Your task to perform on an android device: Toggle the flashlight Image 0: 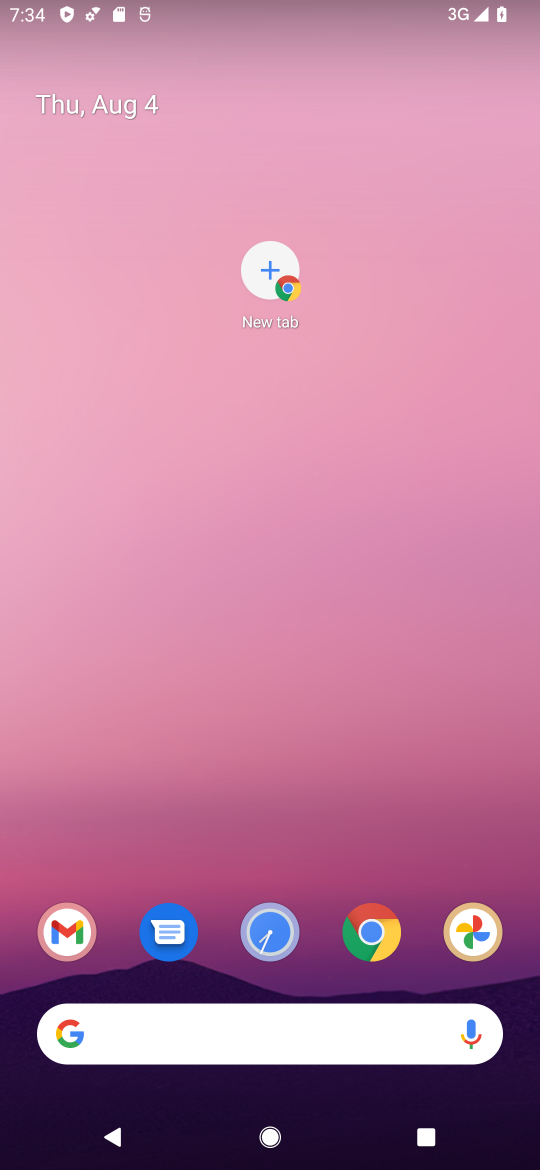
Step 0: click (370, 273)
Your task to perform on an android device: Toggle the flashlight Image 1: 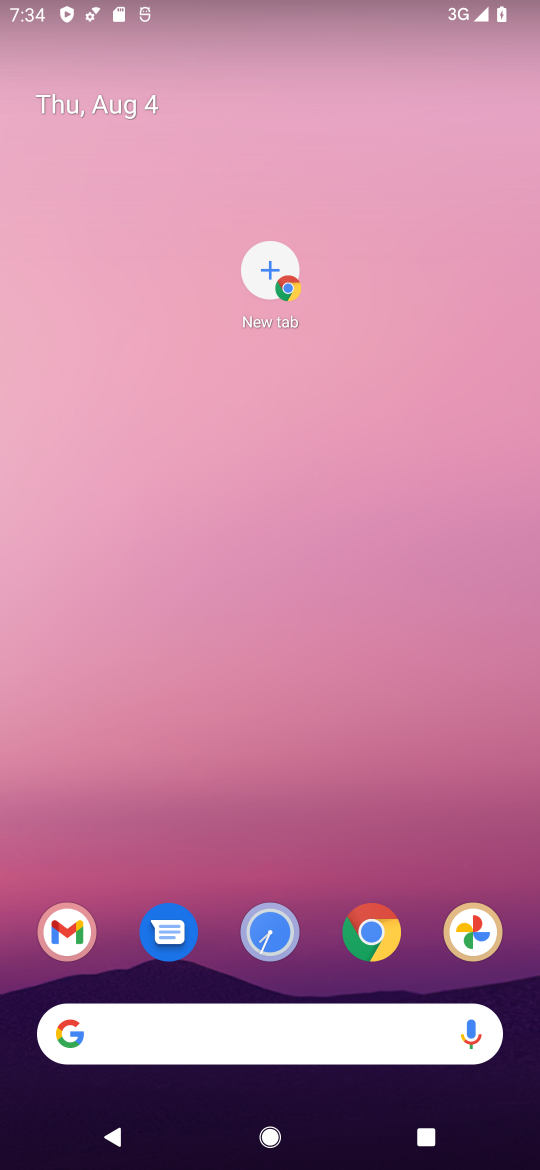
Step 1: drag from (323, 998) to (428, 89)
Your task to perform on an android device: Toggle the flashlight Image 2: 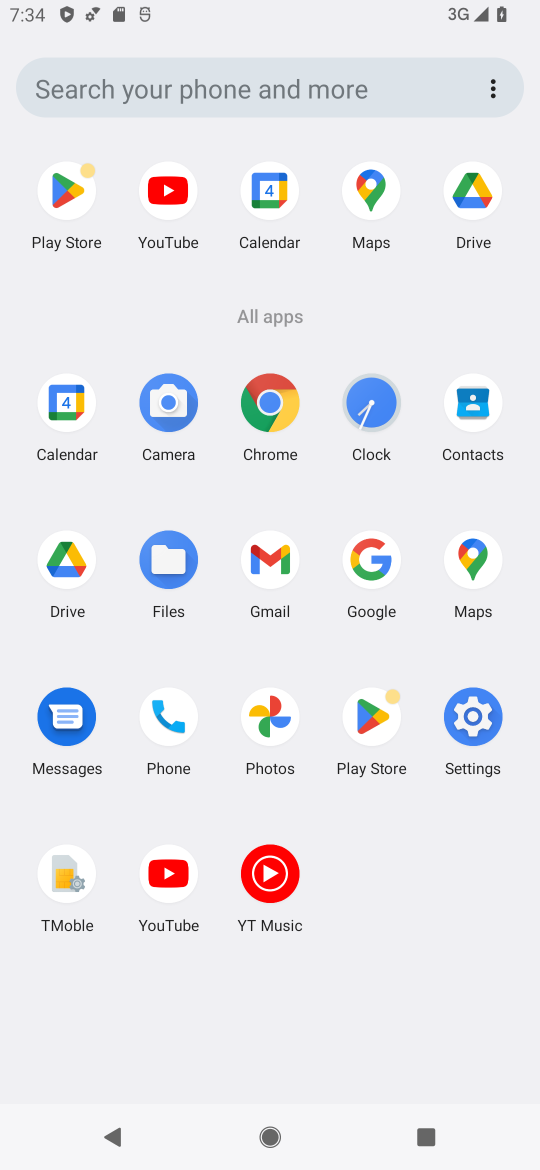
Step 2: click (268, 644)
Your task to perform on an android device: Toggle the flashlight Image 3: 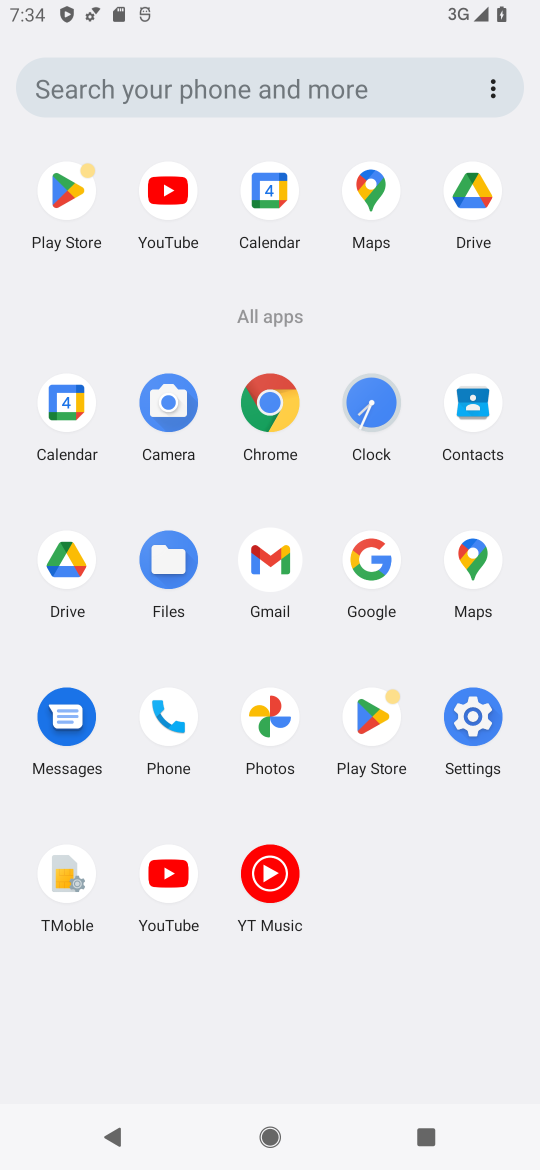
Step 3: drag from (312, 683) to (315, 353)
Your task to perform on an android device: Toggle the flashlight Image 4: 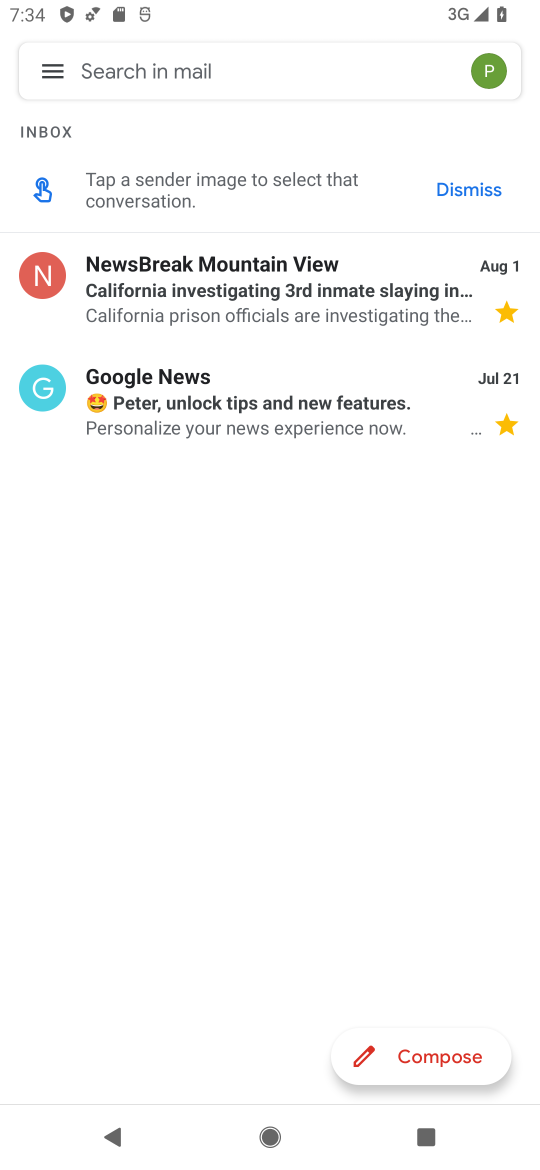
Step 4: drag from (382, 815) to (313, 307)
Your task to perform on an android device: Toggle the flashlight Image 5: 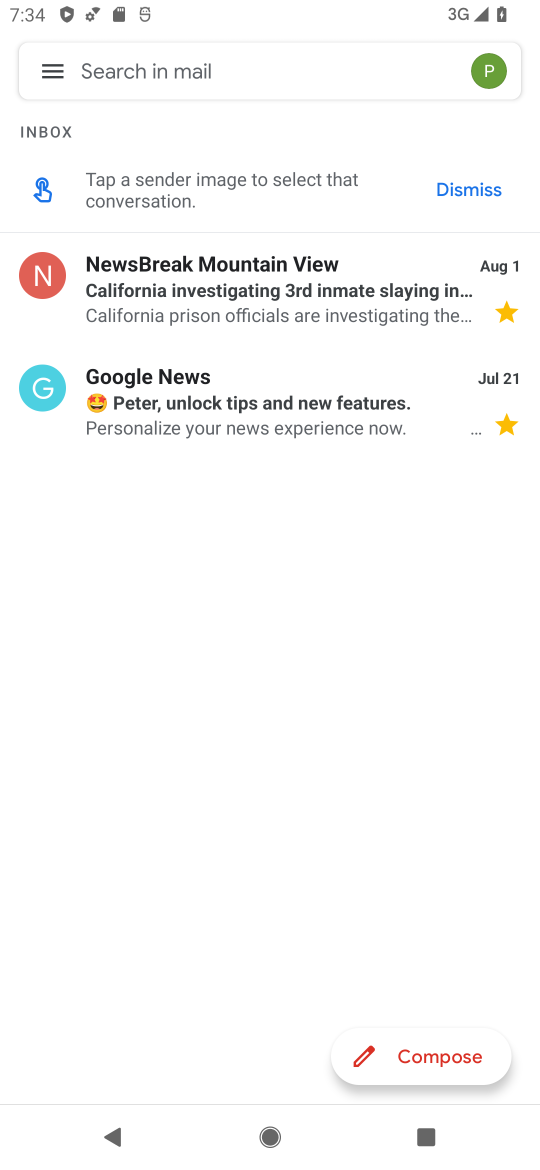
Step 5: drag from (313, 658) to (321, 185)
Your task to perform on an android device: Toggle the flashlight Image 6: 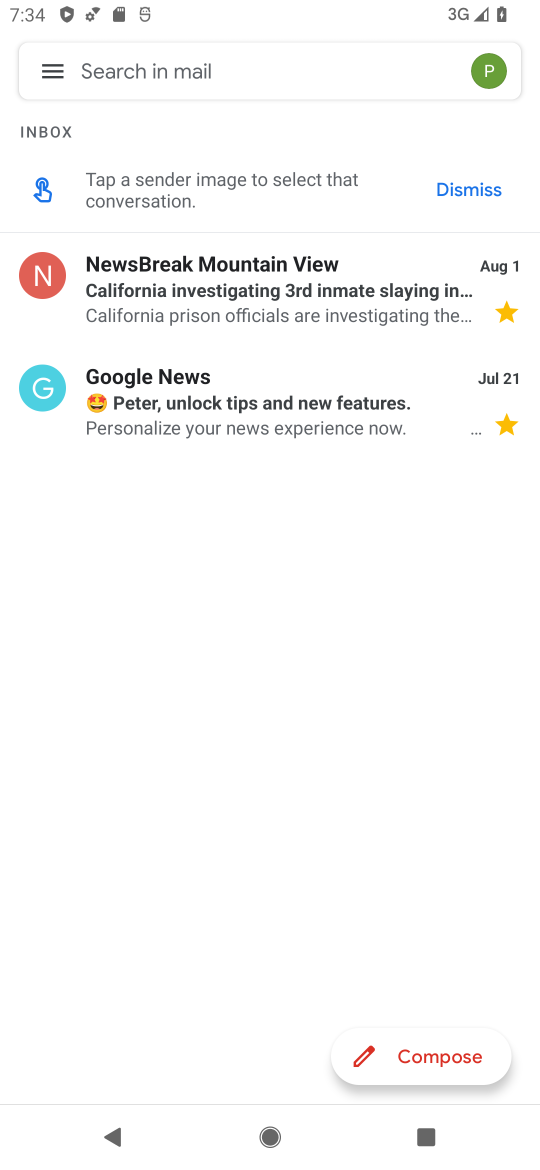
Step 6: drag from (263, 531) to (266, 224)
Your task to perform on an android device: Toggle the flashlight Image 7: 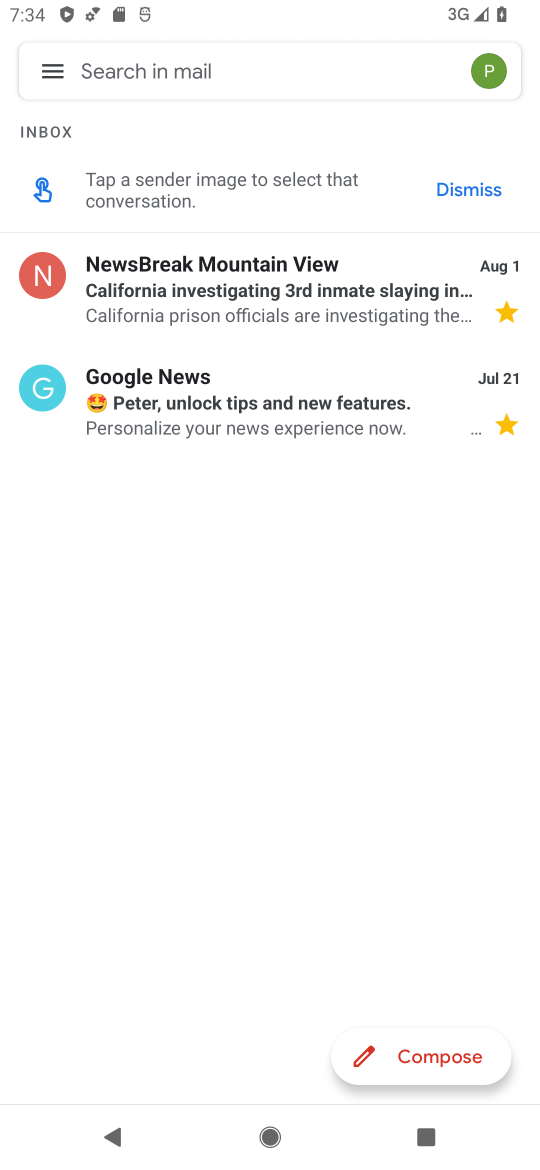
Step 7: click (311, 399)
Your task to perform on an android device: Toggle the flashlight Image 8: 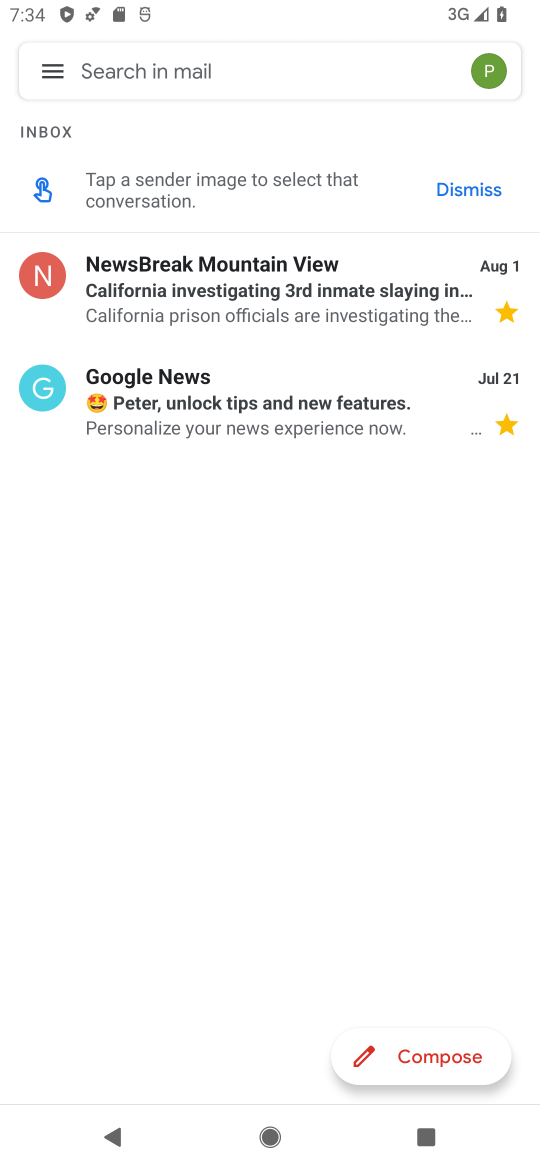
Step 8: task complete